Your task to perform on an android device: Open Google Maps and go to "Timeline" Image 0: 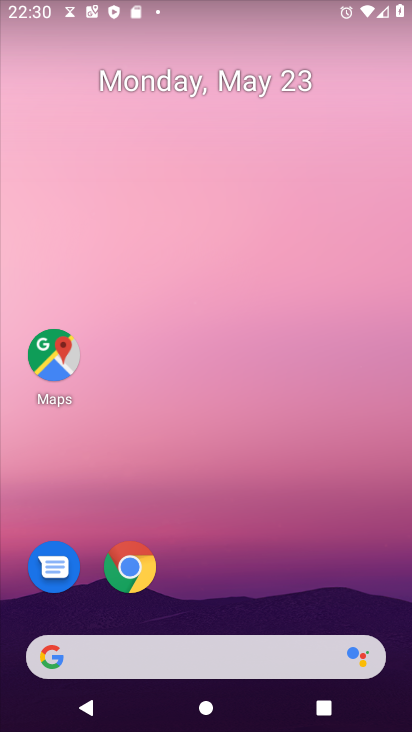
Step 0: click (56, 344)
Your task to perform on an android device: Open Google Maps and go to "Timeline" Image 1: 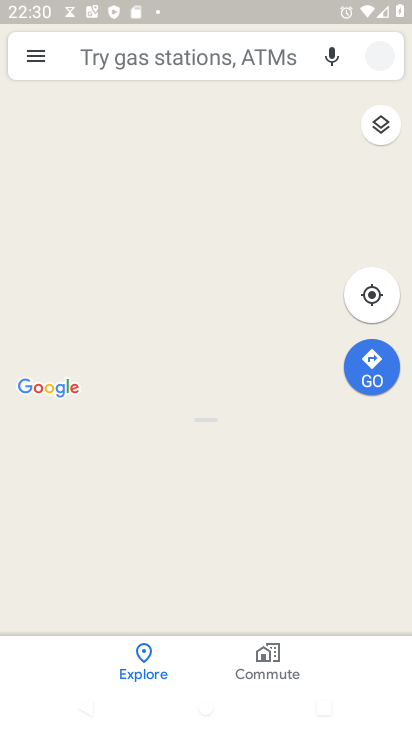
Step 1: click (33, 54)
Your task to perform on an android device: Open Google Maps and go to "Timeline" Image 2: 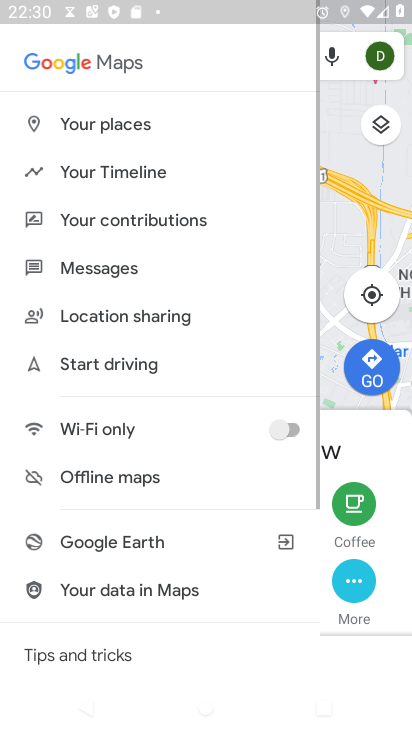
Step 2: click (25, 49)
Your task to perform on an android device: Open Google Maps and go to "Timeline" Image 3: 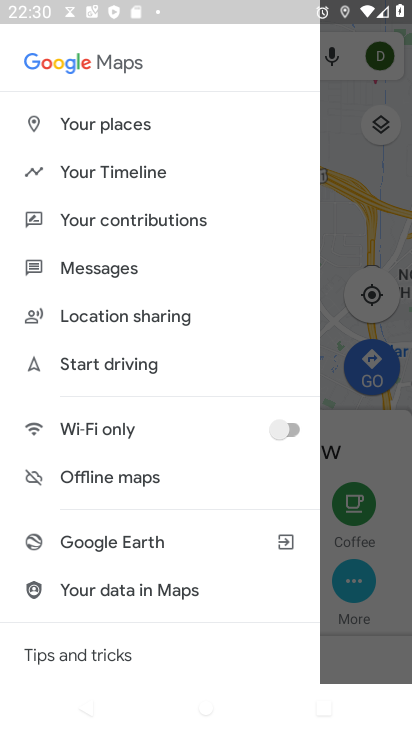
Step 3: click (107, 182)
Your task to perform on an android device: Open Google Maps and go to "Timeline" Image 4: 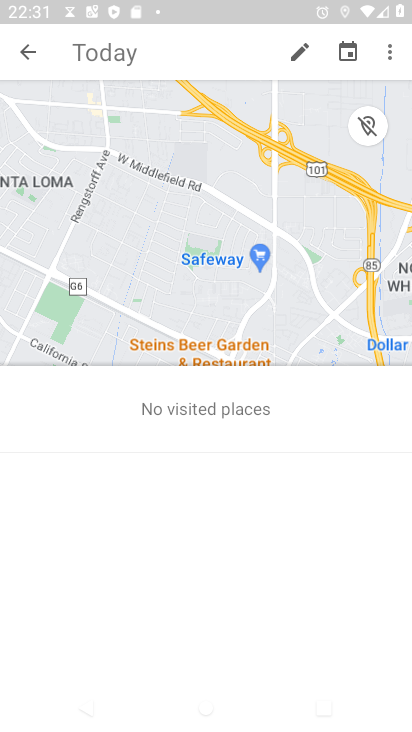
Step 4: task complete